Your task to perform on an android device: open app "Lyft - Rideshare, Bikes, Scooters & Transit" (install if not already installed) Image 0: 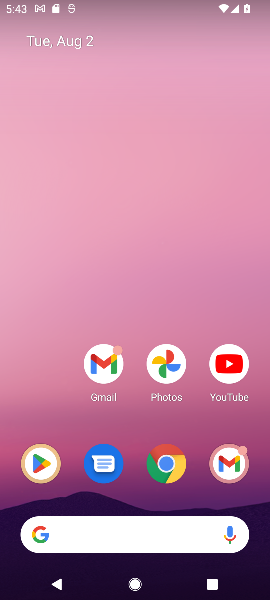
Step 0: press home button
Your task to perform on an android device: open app "Lyft - Rideshare, Bikes, Scooters & Transit" (install if not already installed) Image 1: 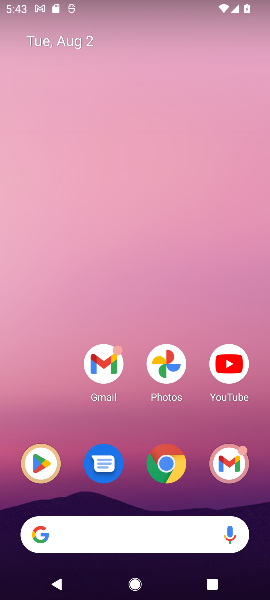
Step 1: click (34, 466)
Your task to perform on an android device: open app "Lyft - Rideshare, Bikes, Scooters & Transit" (install if not already installed) Image 2: 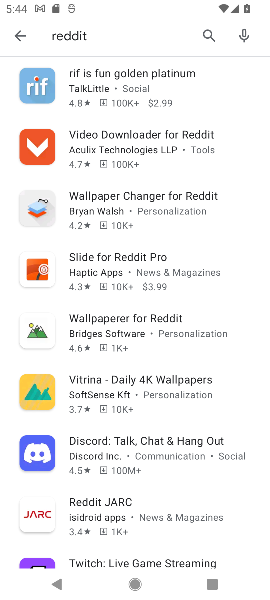
Step 2: click (208, 31)
Your task to perform on an android device: open app "Lyft - Rideshare, Bikes, Scooters & Transit" (install if not already installed) Image 3: 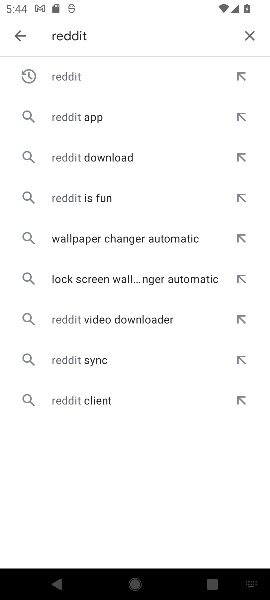
Step 3: click (249, 30)
Your task to perform on an android device: open app "Lyft - Rideshare, Bikes, Scooters & Transit" (install if not already installed) Image 4: 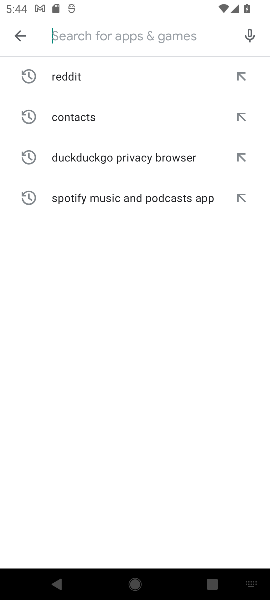
Step 4: type "Lyft - Rideshare, Bikes, Scooters & Transit"
Your task to perform on an android device: open app "Lyft - Rideshare, Bikes, Scooters & Transit" (install if not already installed) Image 5: 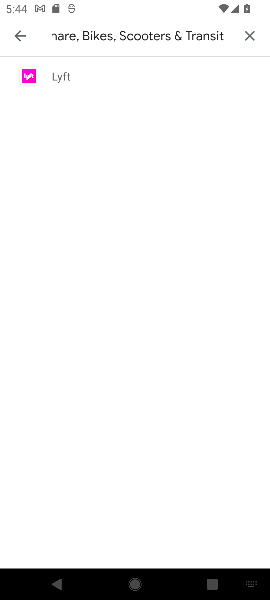
Step 5: click (57, 77)
Your task to perform on an android device: open app "Lyft - Rideshare, Bikes, Scooters & Transit" (install if not already installed) Image 6: 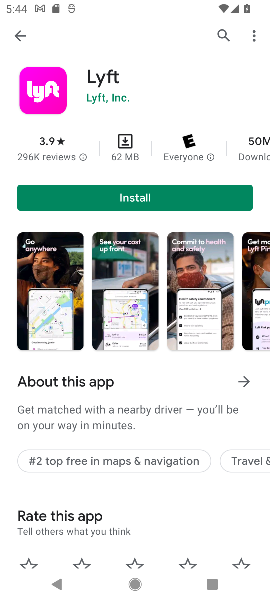
Step 6: click (128, 193)
Your task to perform on an android device: open app "Lyft - Rideshare, Bikes, Scooters & Transit" (install if not already installed) Image 7: 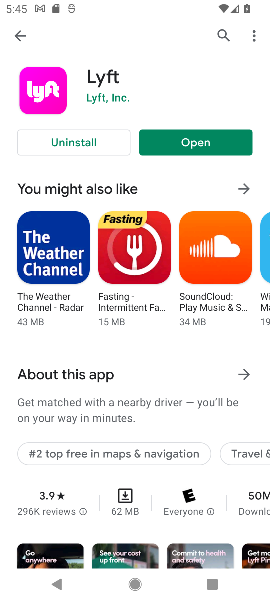
Step 7: click (227, 142)
Your task to perform on an android device: open app "Lyft - Rideshare, Bikes, Scooters & Transit" (install if not already installed) Image 8: 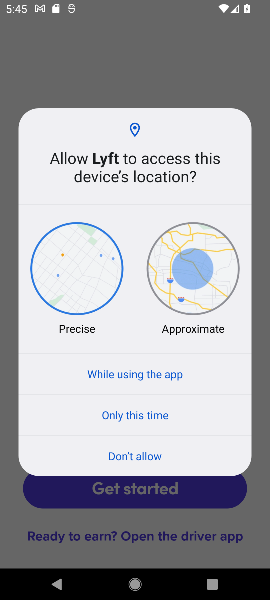
Step 8: task complete